Your task to perform on an android device: Empty the shopping cart on newegg.com. Add duracell triple a to the cart on newegg.com Image 0: 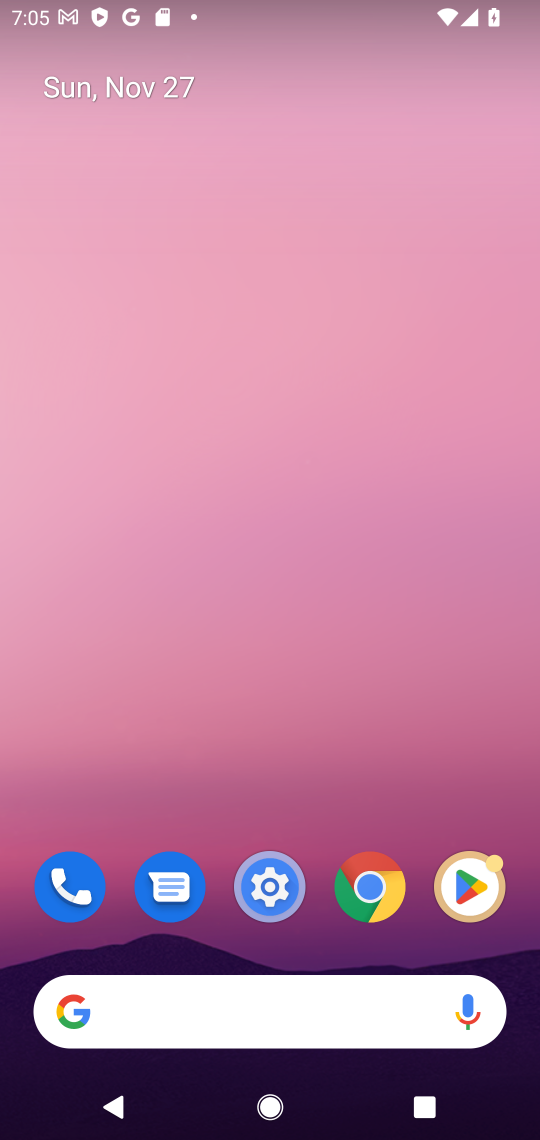
Step 0: click (234, 1037)
Your task to perform on an android device: Empty the shopping cart on newegg.com. Add duracell triple a to the cart on newegg.com Image 1: 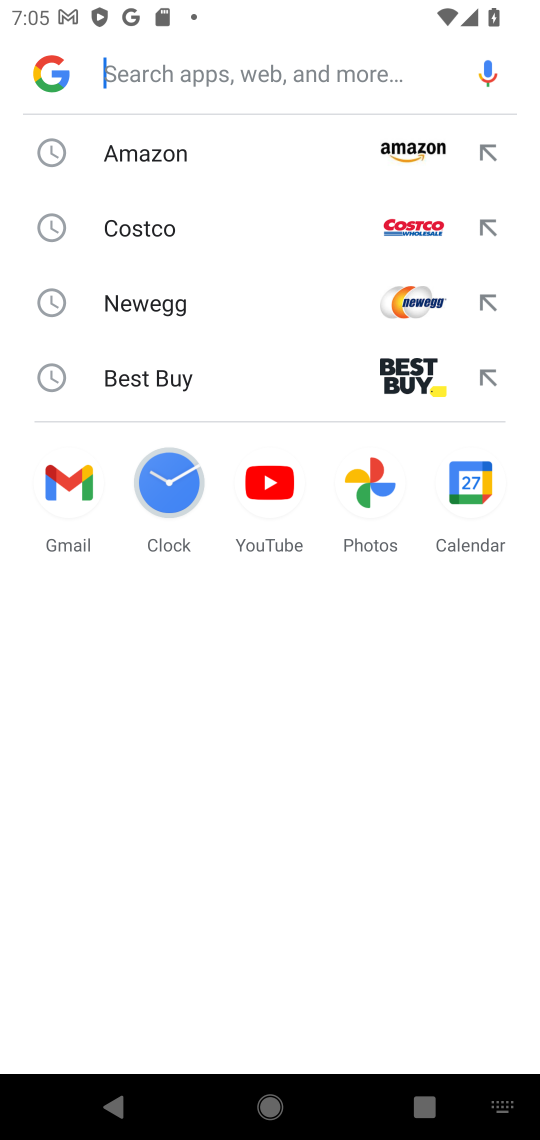
Step 1: type "newegg.com"
Your task to perform on an android device: Empty the shopping cart on newegg.com. Add duracell triple a to the cart on newegg.com Image 2: 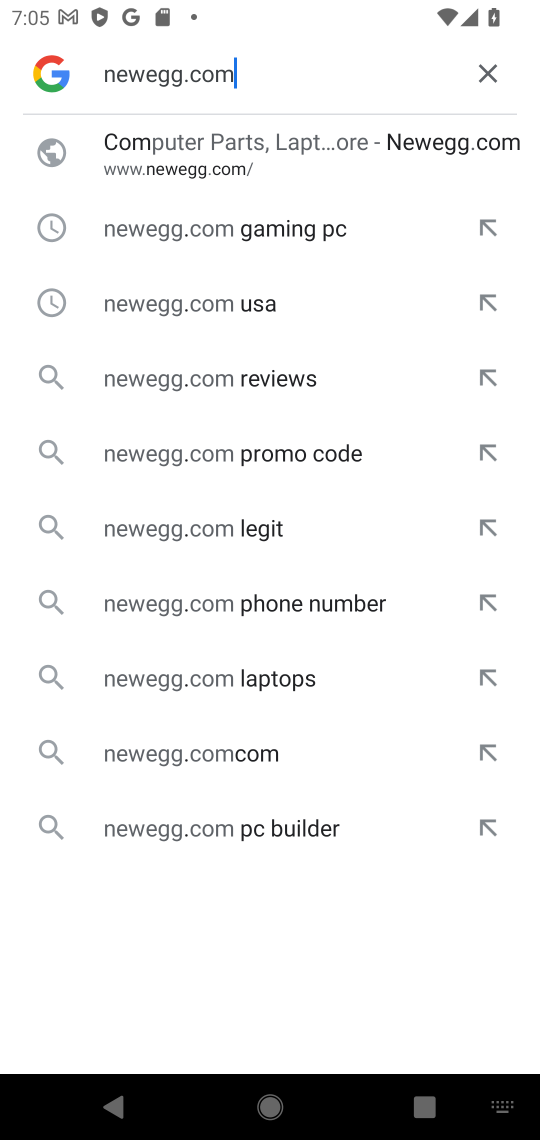
Step 2: click (206, 185)
Your task to perform on an android device: Empty the shopping cart on newegg.com. Add duracell triple a to the cart on newegg.com Image 3: 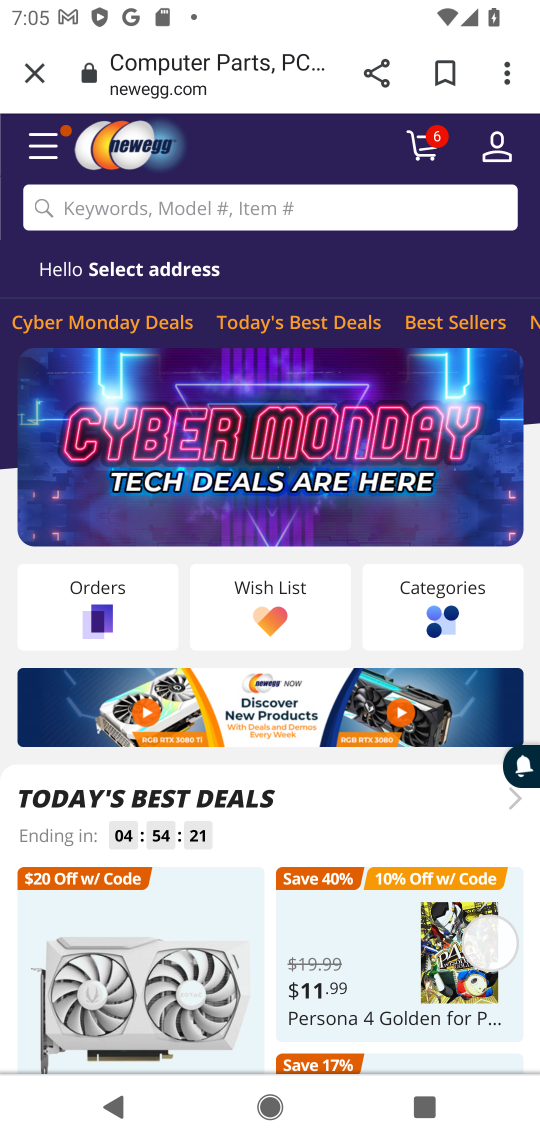
Step 3: click (227, 206)
Your task to perform on an android device: Empty the shopping cart on newegg.com. Add duracell triple a to the cart on newegg.com Image 4: 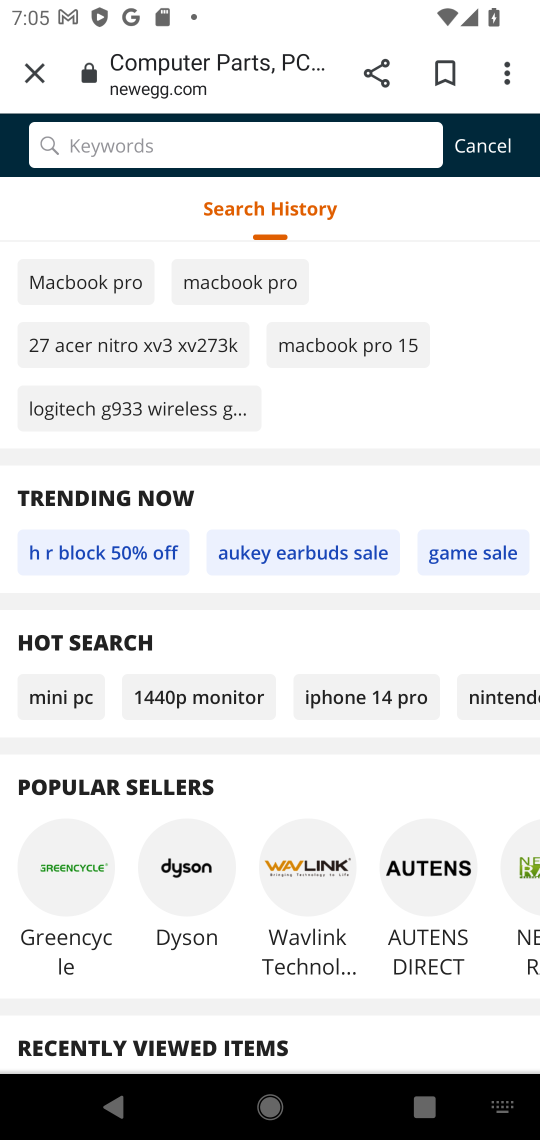
Step 4: type "duracell triple a"
Your task to perform on an android device: Empty the shopping cart on newegg.com. Add duracell triple a to the cart on newegg.com Image 5: 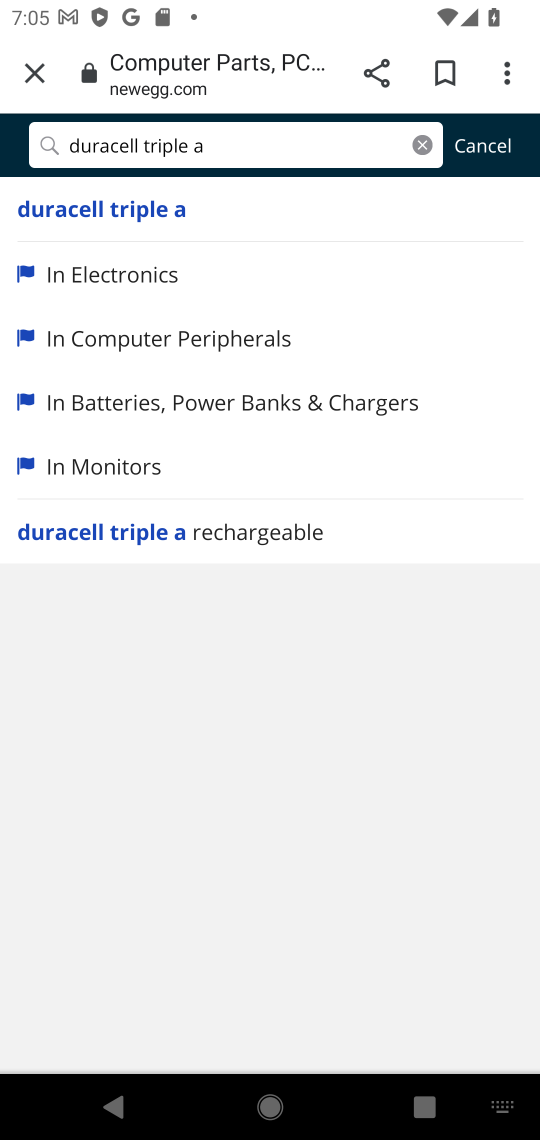
Step 5: click (84, 209)
Your task to perform on an android device: Empty the shopping cart on newegg.com. Add duracell triple a to the cart on newegg.com Image 6: 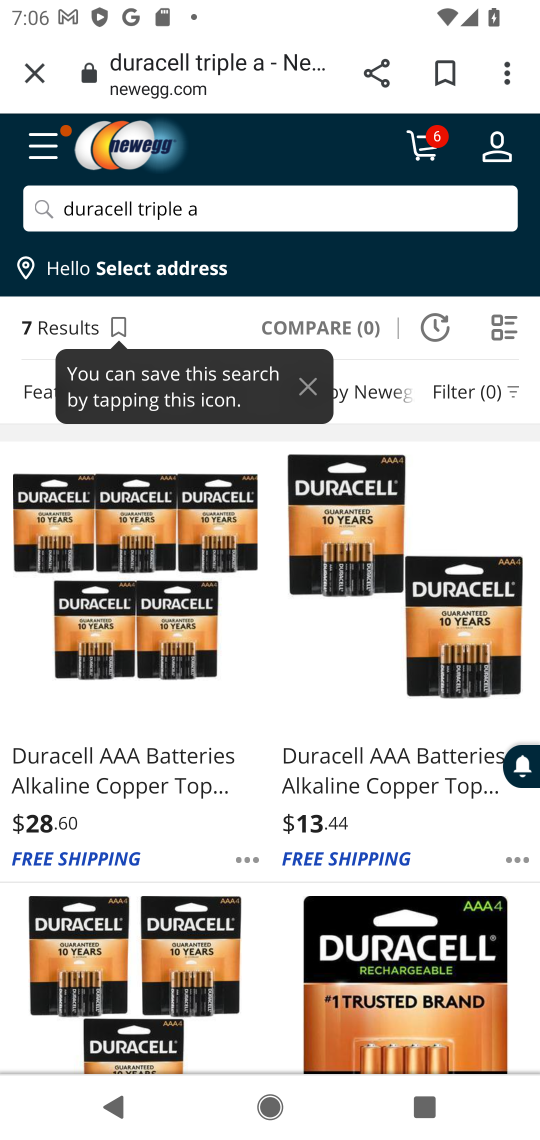
Step 6: click (101, 795)
Your task to perform on an android device: Empty the shopping cart on newegg.com. Add duracell triple a to the cart on newegg.com Image 7: 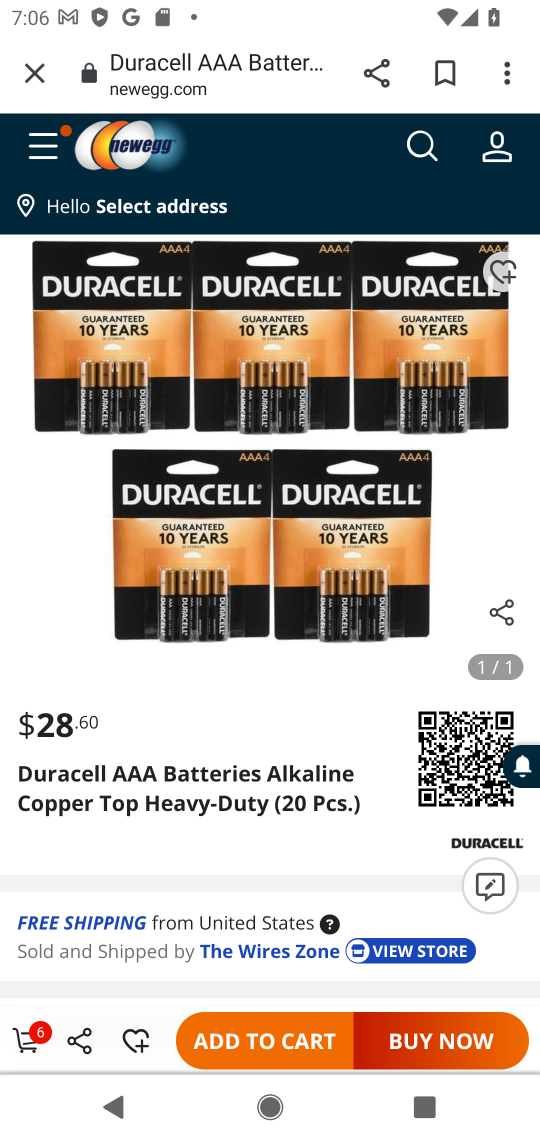
Step 7: click (269, 1034)
Your task to perform on an android device: Empty the shopping cart on newegg.com. Add duracell triple a to the cart on newegg.com Image 8: 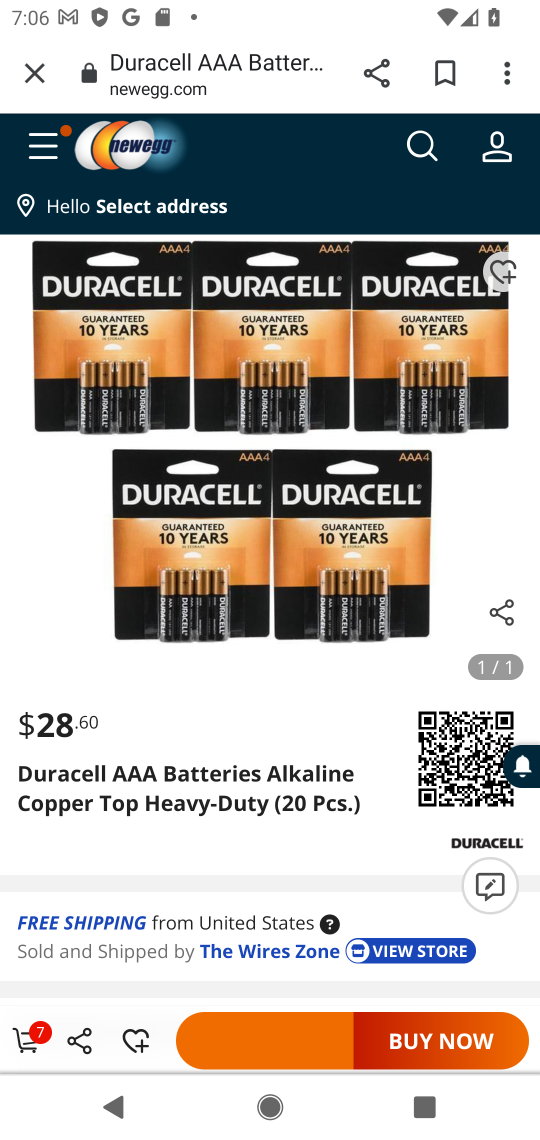
Step 8: task complete